Your task to perform on an android device: toggle airplane mode Image 0: 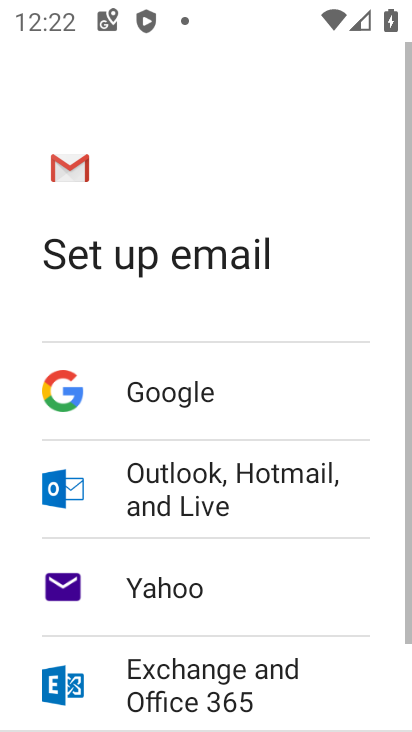
Step 0: press home button
Your task to perform on an android device: toggle airplane mode Image 1: 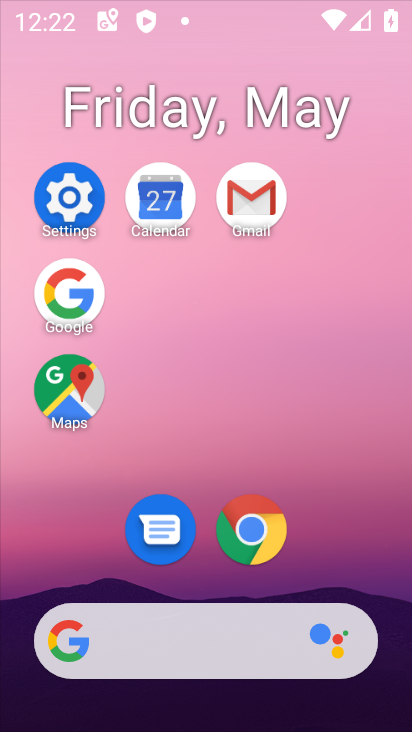
Step 1: click (61, 203)
Your task to perform on an android device: toggle airplane mode Image 2: 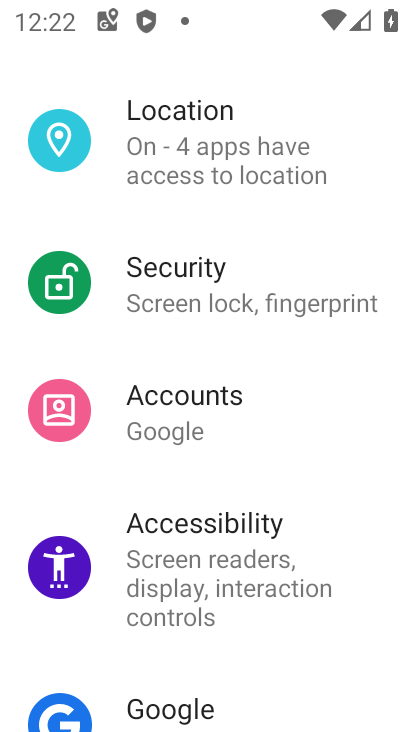
Step 2: drag from (251, 145) to (351, 708)
Your task to perform on an android device: toggle airplane mode Image 3: 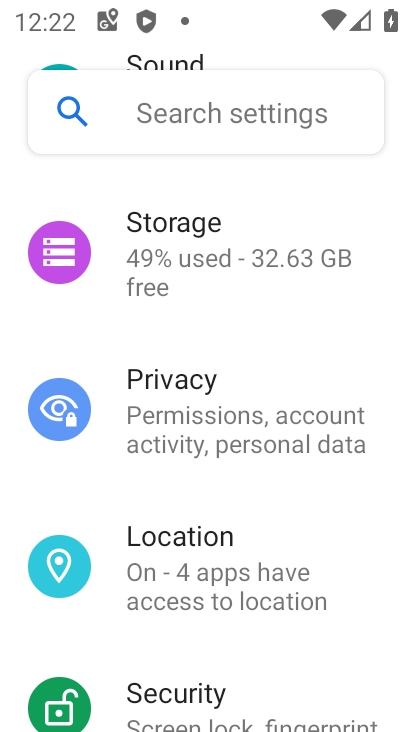
Step 3: drag from (246, 231) to (276, 720)
Your task to perform on an android device: toggle airplane mode Image 4: 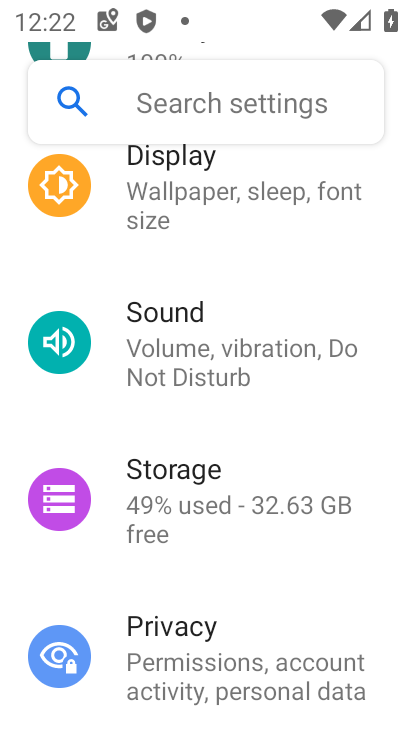
Step 4: drag from (251, 225) to (265, 720)
Your task to perform on an android device: toggle airplane mode Image 5: 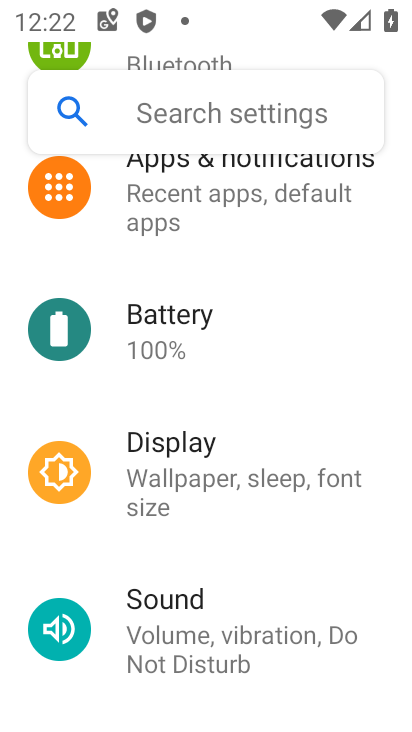
Step 5: drag from (259, 213) to (283, 690)
Your task to perform on an android device: toggle airplane mode Image 6: 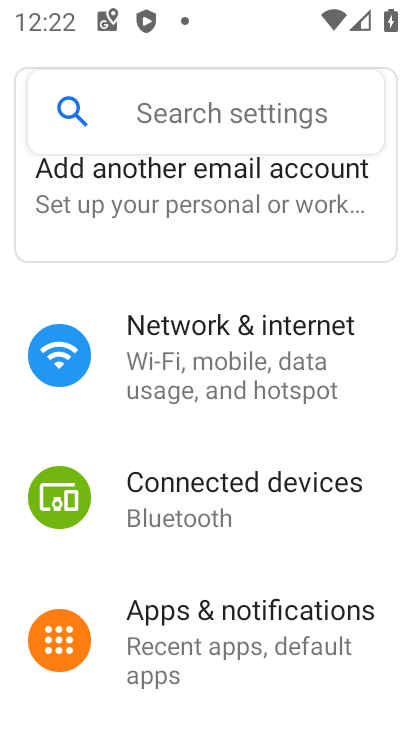
Step 6: click (214, 381)
Your task to perform on an android device: toggle airplane mode Image 7: 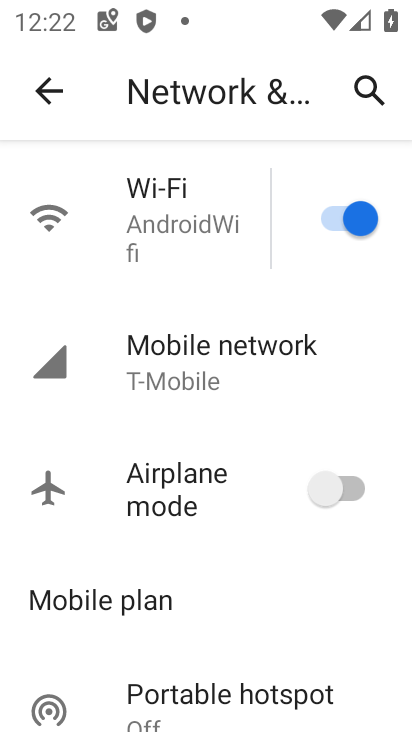
Step 7: click (322, 498)
Your task to perform on an android device: toggle airplane mode Image 8: 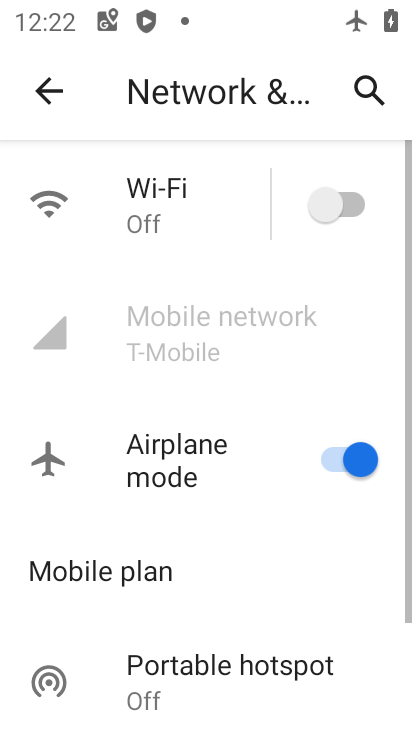
Step 8: task complete